Your task to perform on an android device: clear history in the chrome app Image 0: 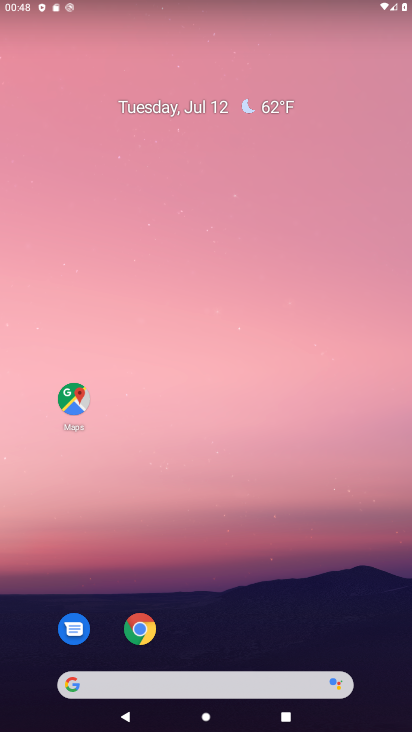
Step 0: click (135, 627)
Your task to perform on an android device: clear history in the chrome app Image 1: 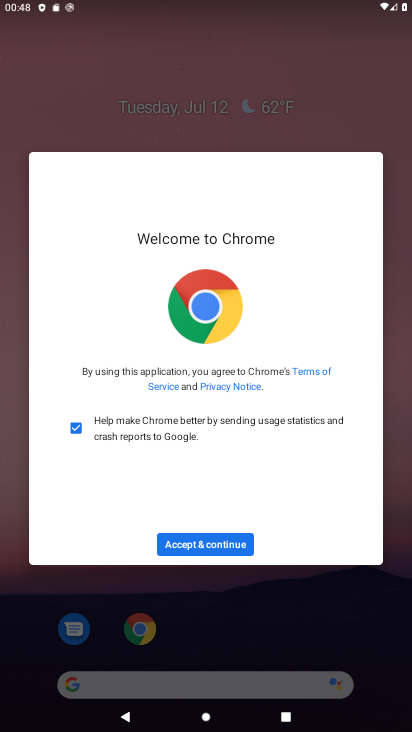
Step 1: click (186, 543)
Your task to perform on an android device: clear history in the chrome app Image 2: 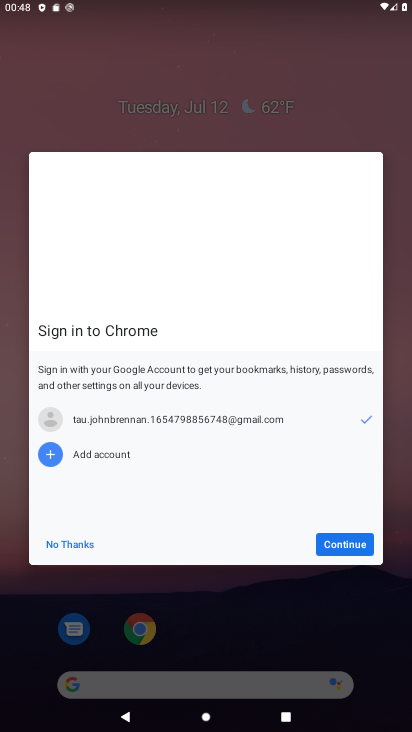
Step 2: click (336, 537)
Your task to perform on an android device: clear history in the chrome app Image 3: 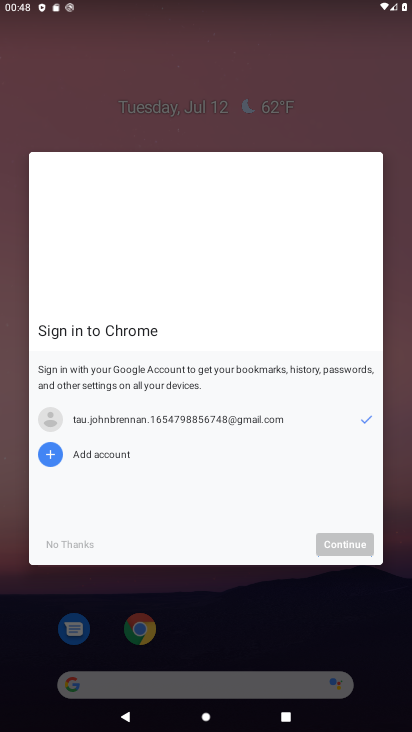
Step 3: click (336, 537)
Your task to perform on an android device: clear history in the chrome app Image 4: 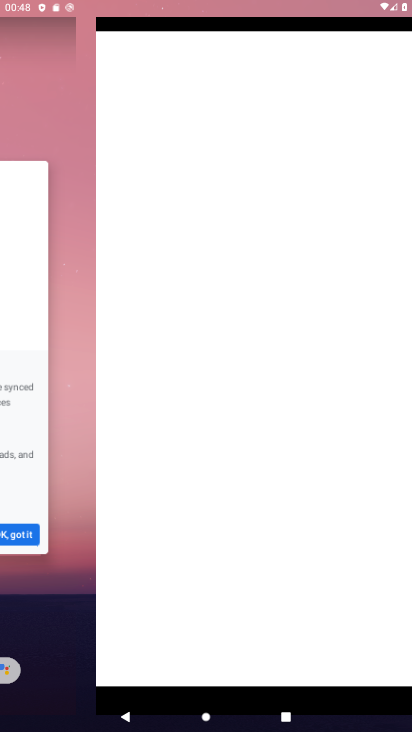
Step 4: click (336, 537)
Your task to perform on an android device: clear history in the chrome app Image 5: 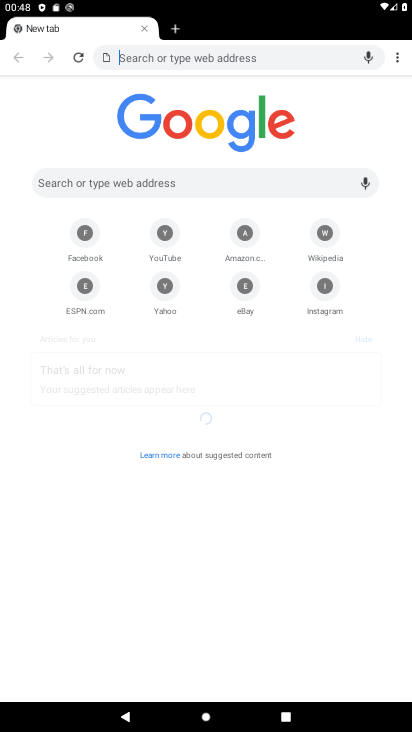
Step 5: task complete